Your task to perform on an android device: What's the weather today? Image 0: 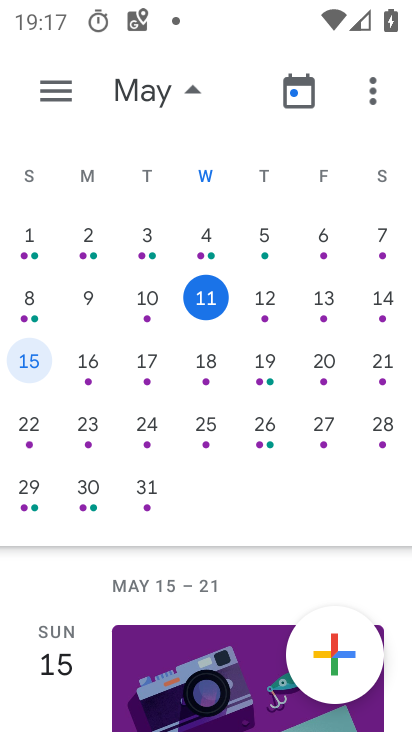
Step 0: press home button
Your task to perform on an android device: What's the weather today? Image 1: 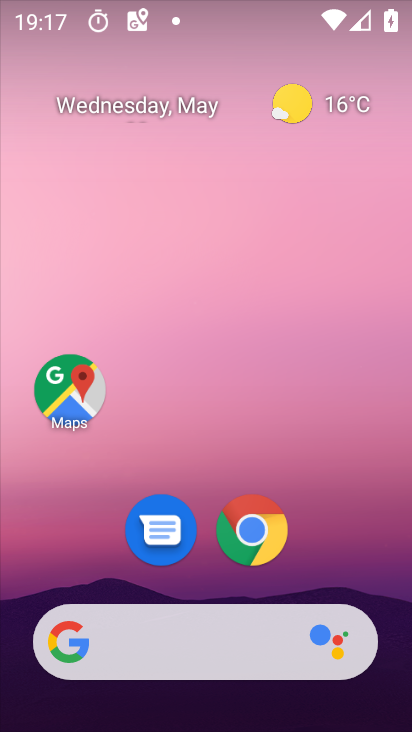
Step 1: click (247, 521)
Your task to perform on an android device: What's the weather today? Image 2: 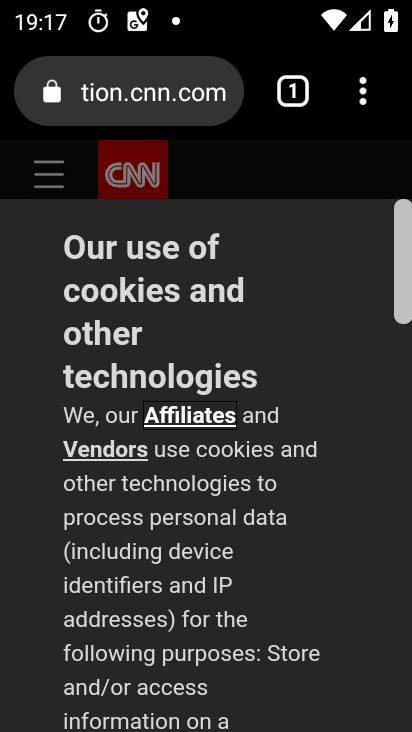
Step 2: click (176, 98)
Your task to perform on an android device: What's the weather today? Image 3: 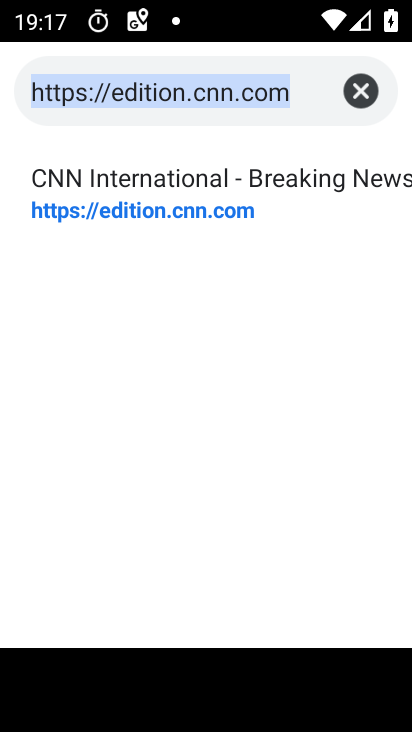
Step 3: type "weather"
Your task to perform on an android device: What's the weather today? Image 4: 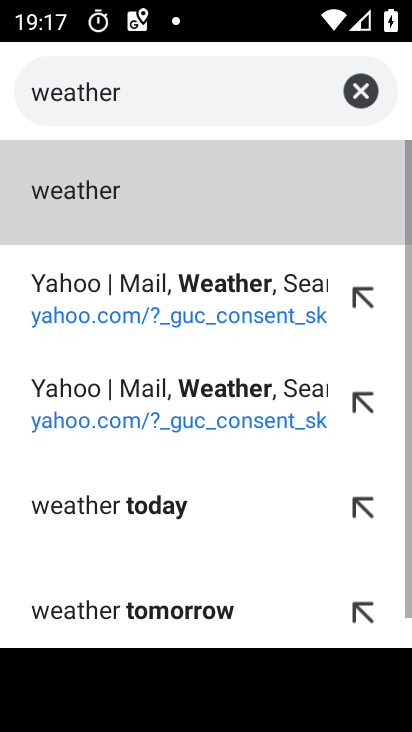
Step 4: click (179, 199)
Your task to perform on an android device: What's the weather today? Image 5: 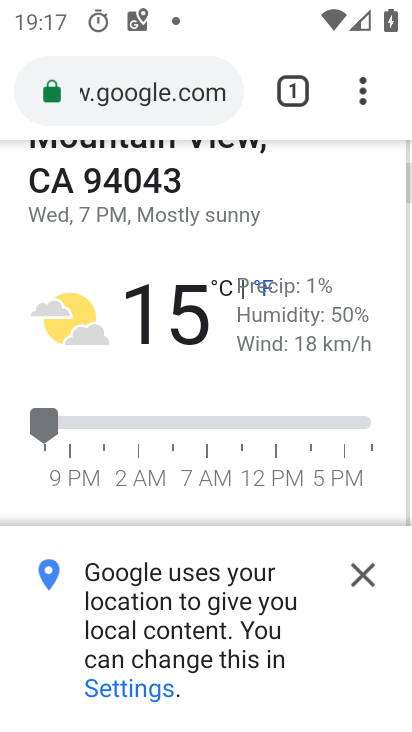
Step 5: click (366, 582)
Your task to perform on an android device: What's the weather today? Image 6: 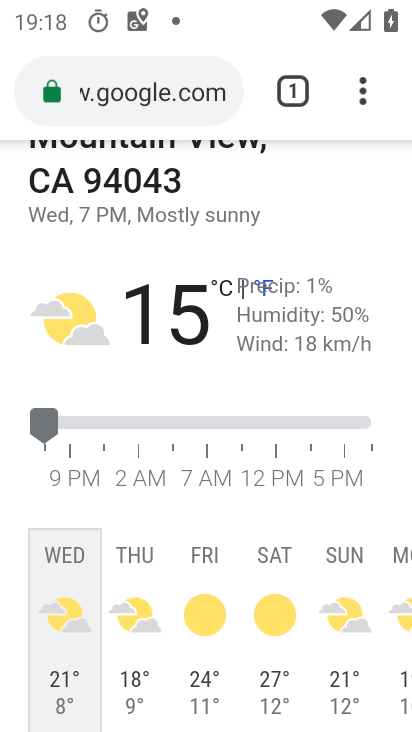
Step 6: task complete